Your task to perform on an android device: turn on showing notifications on the lock screen Image 0: 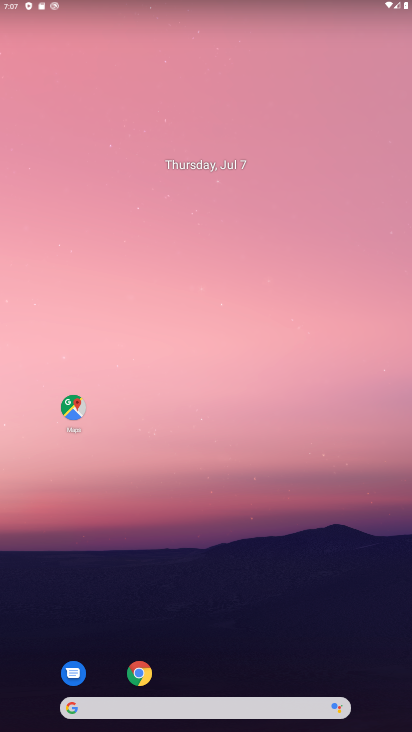
Step 0: drag from (261, 638) to (129, 18)
Your task to perform on an android device: turn on showing notifications on the lock screen Image 1: 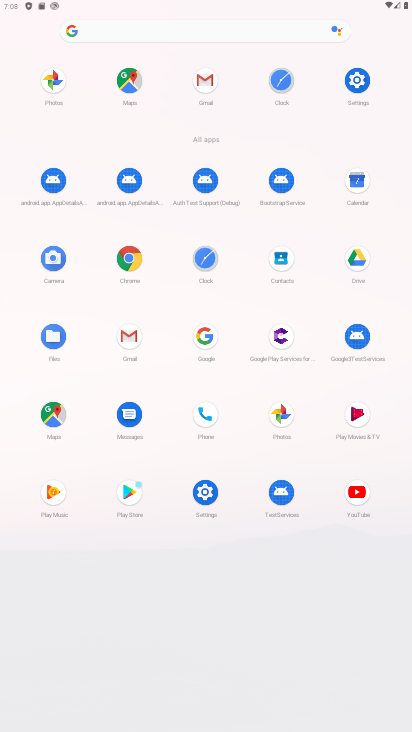
Step 1: click (360, 81)
Your task to perform on an android device: turn on showing notifications on the lock screen Image 2: 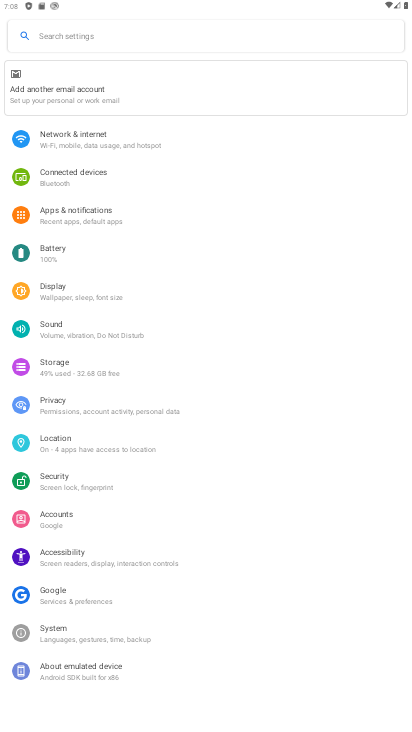
Step 2: click (101, 214)
Your task to perform on an android device: turn on showing notifications on the lock screen Image 3: 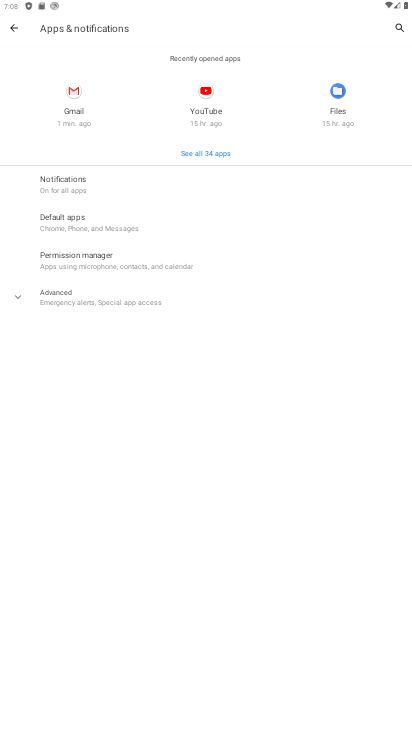
Step 3: click (71, 185)
Your task to perform on an android device: turn on showing notifications on the lock screen Image 4: 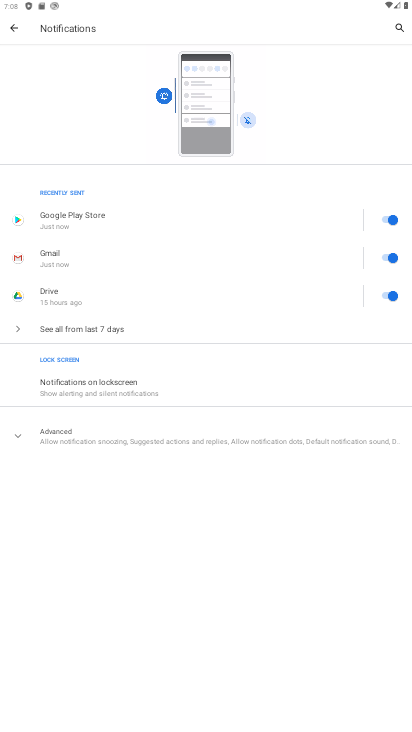
Step 4: click (102, 382)
Your task to perform on an android device: turn on showing notifications on the lock screen Image 5: 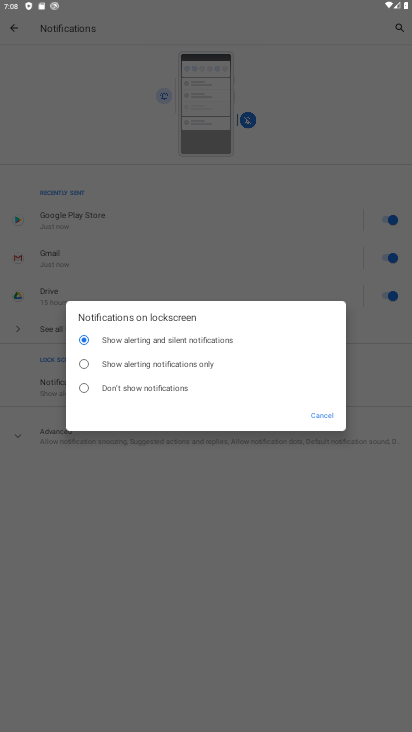
Step 5: click (84, 342)
Your task to perform on an android device: turn on showing notifications on the lock screen Image 6: 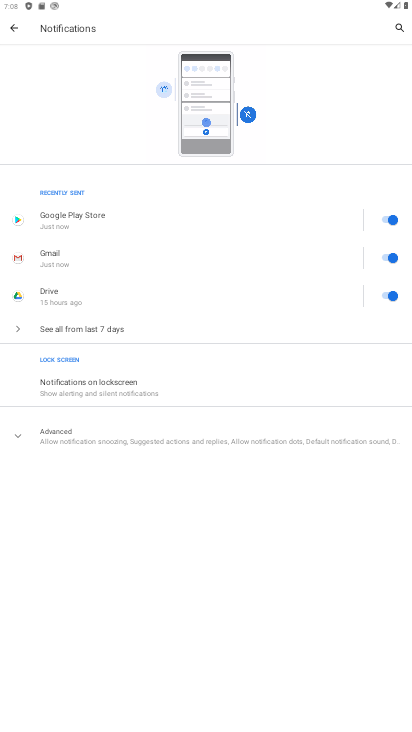
Step 6: task complete